Your task to perform on an android device: turn off wifi Image 0: 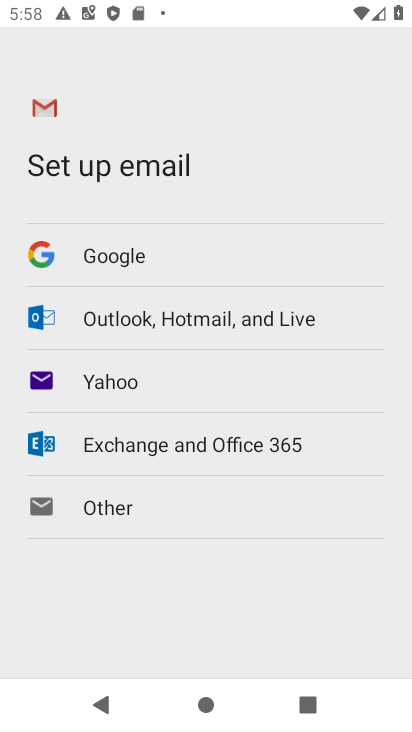
Step 0: press home button
Your task to perform on an android device: turn off wifi Image 1: 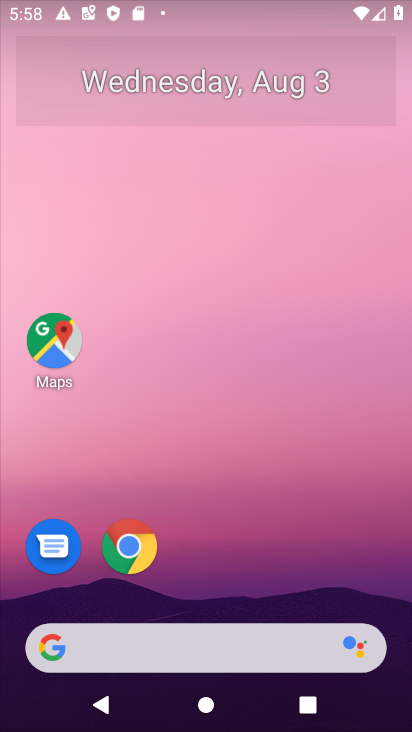
Step 1: drag from (209, 169) to (164, 407)
Your task to perform on an android device: turn off wifi Image 2: 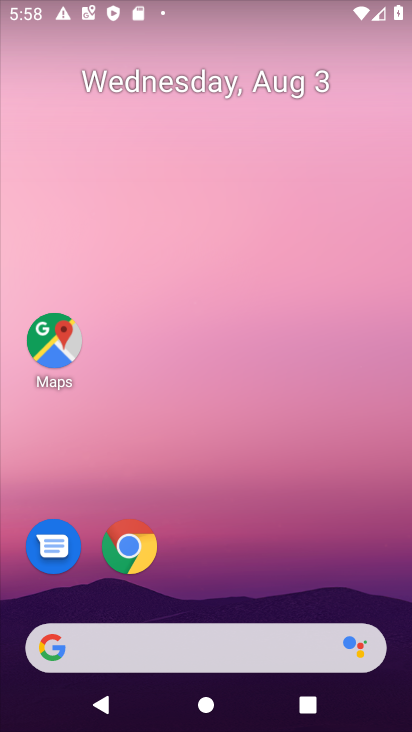
Step 2: drag from (220, 2) to (144, 447)
Your task to perform on an android device: turn off wifi Image 3: 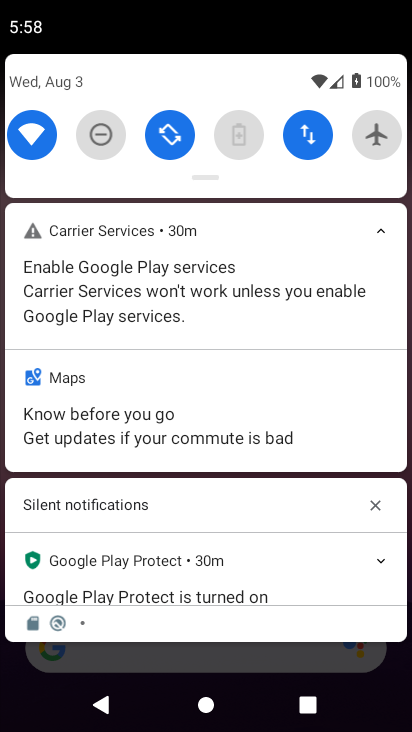
Step 3: click (36, 132)
Your task to perform on an android device: turn off wifi Image 4: 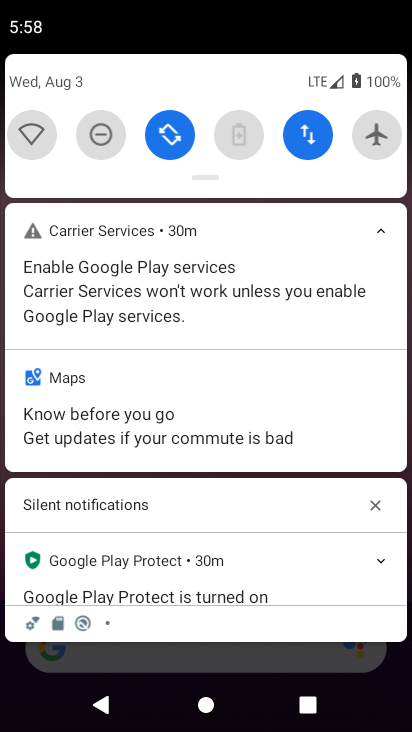
Step 4: task complete